Your task to perform on an android device: Open ESPN.com Image 0: 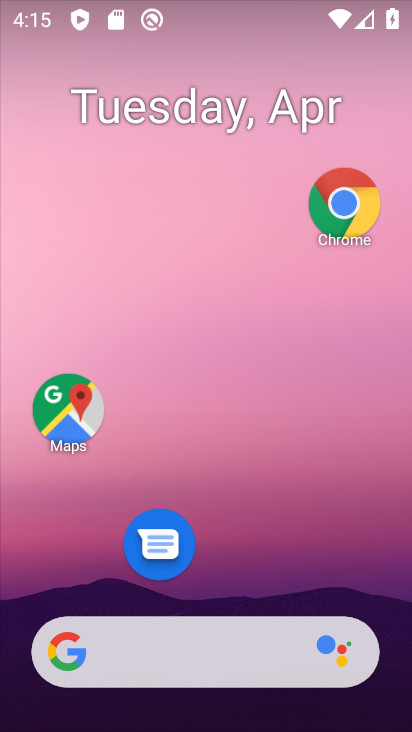
Step 0: click (343, 209)
Your task to perform on an android device: Open ESPN.com Image 1: 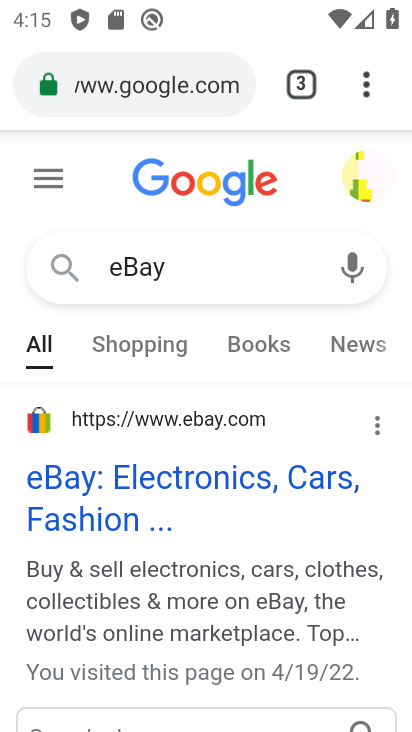
Step 1: click (202, 79)
Your task to perform on an android device: Open ESPN.com Image 2: 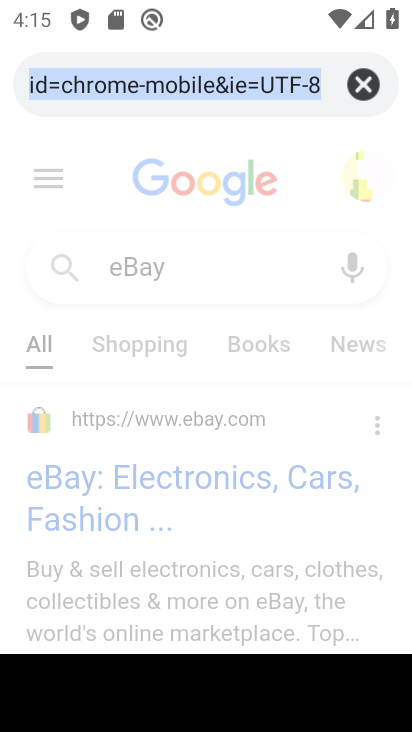
Step 2: type "ESPN.com"
Your task to perform on an android device: Open ESPN.com Image 3: 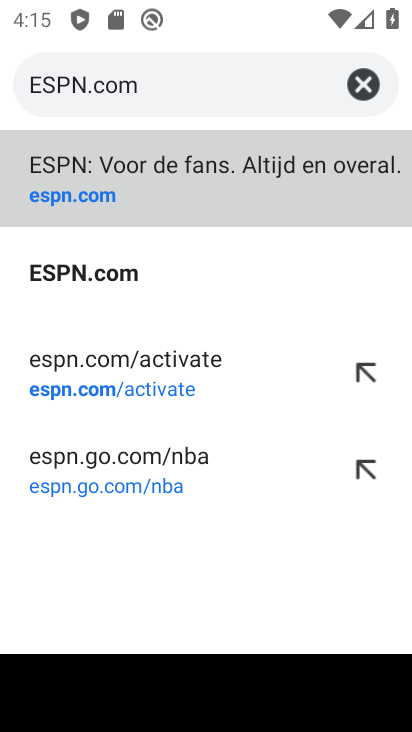
Step 3: click (128, 273)
Your task to perform on an android device: Open ESPN.com Image 4: 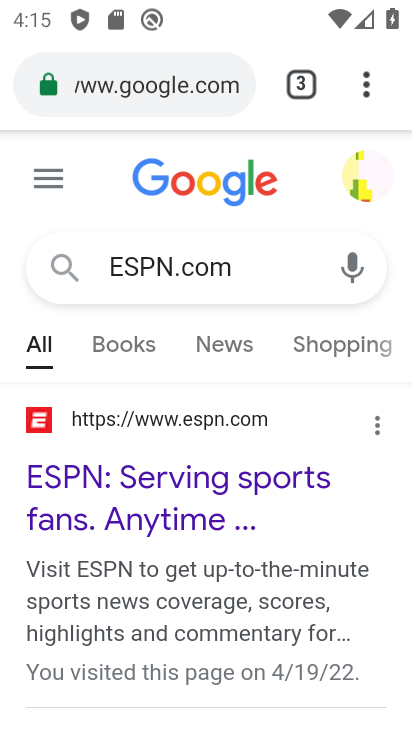
Step 4: task complete